Your task to perform on an android device: Open network settings Image 0: 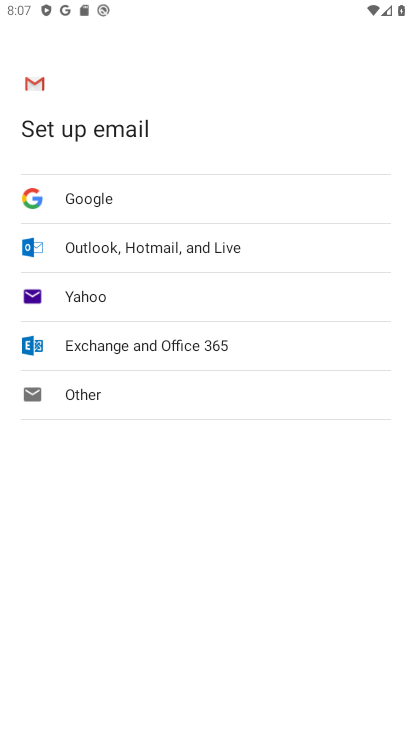
Step 0: press home button
Your task to perform on an android device: Open network settings Image 1: 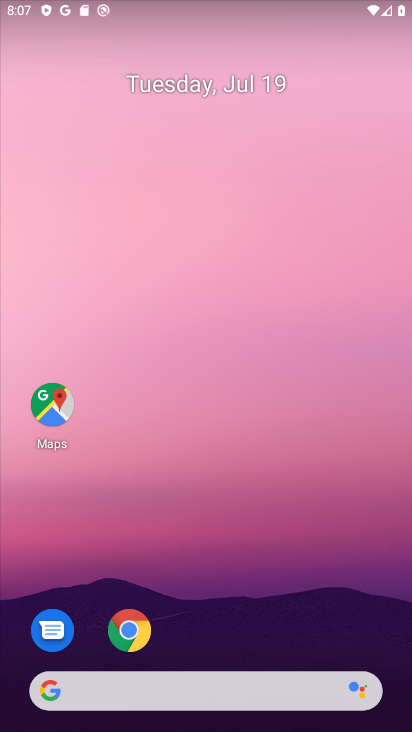
Step 1: drag from (246, 604) to (377, 8)
Your task to perform on an android device: Open network settings Image 2: 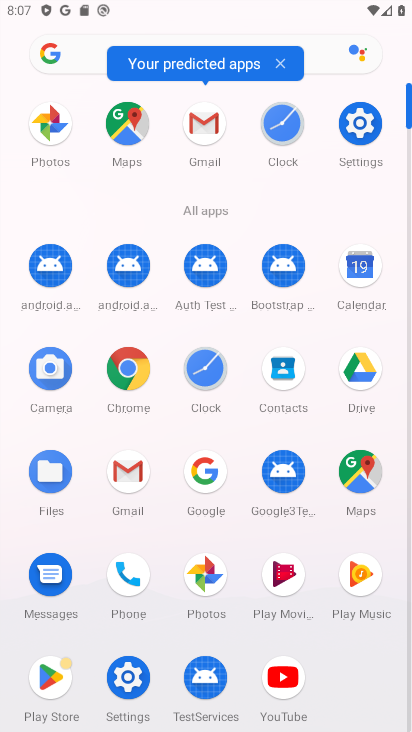
Step 2: click (361, 117)
Your task to perform on an android device: Open network settings Image 3: 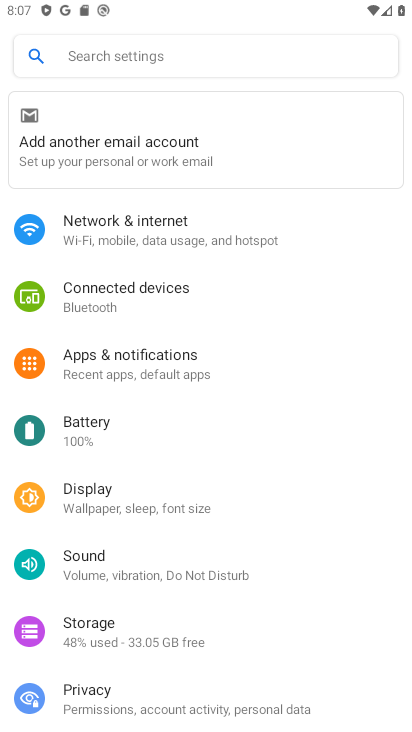
Step 3: click (235, 223)
Your task to perform on an android device: Open network settings Image 4: 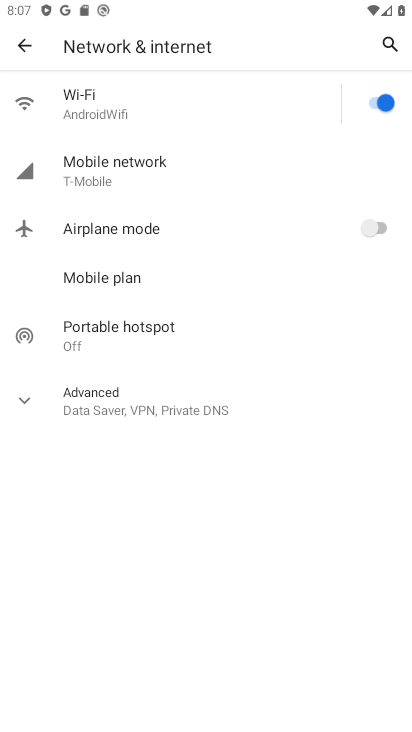
Step 4: click (180, 181)
Your task to perform on an android device: Open network settings Image 5: 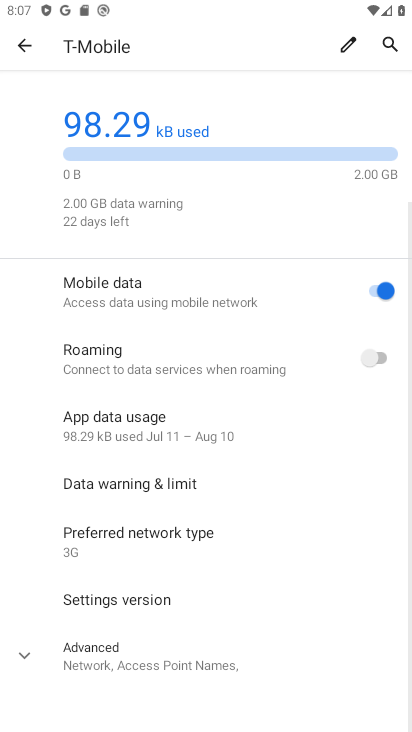
Step 5: task complete